Your task to perform on an android device: Do I have any events tomorrow? Image 0: 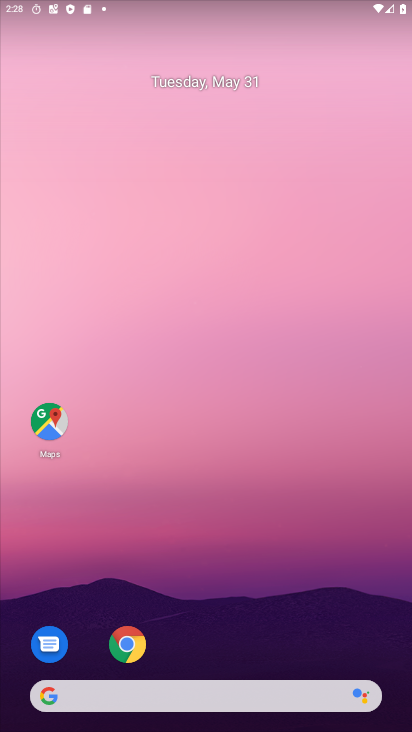
Step 0: drag from (401, 696) to (381, 156)
Your task to perform on an android device: Do I have any events tomorrow? Image 1: 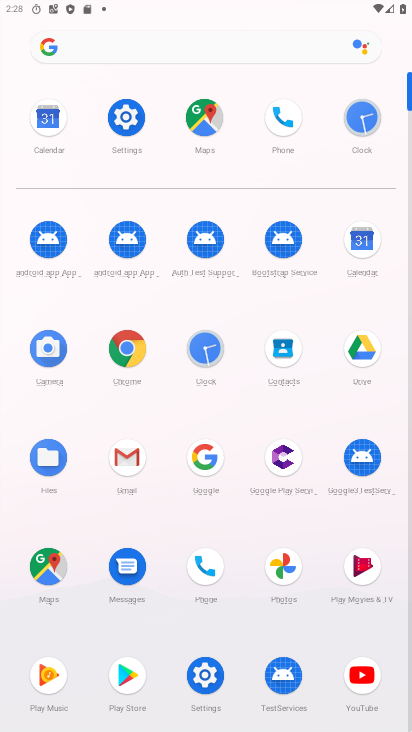
Step 1: click (353, 255)
Your task to perform on an android device: Do I have any events tomorrow? Image 2: 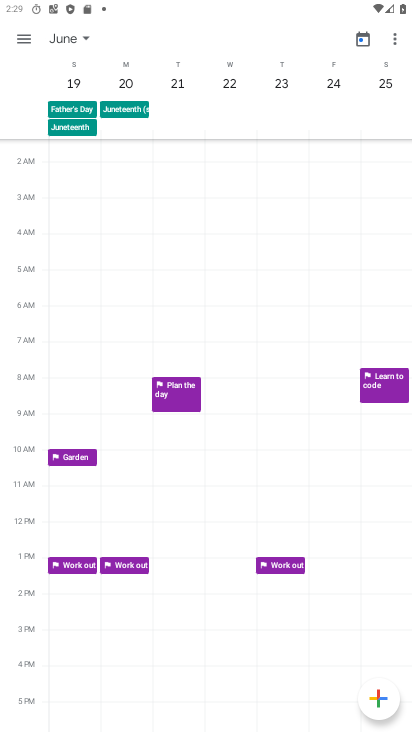
Step 2: click (79, 42)
Your task to perform on an android device: Do I have any events tomorrow? Image 3: 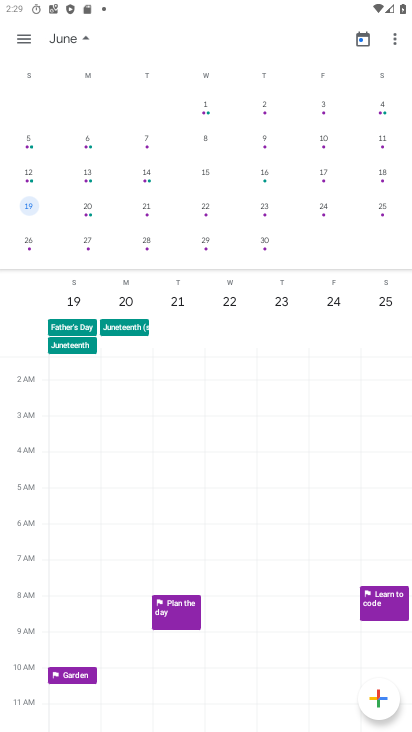
Step 3: click (201, 100)
Your task to perform on an android device: Do I have any events tomorrow? Image 4: 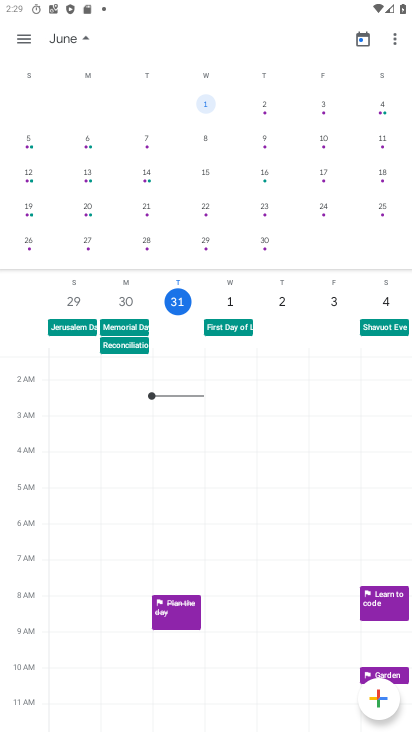
Step 4: click (17, 28)
Your task to perform on an android device: Do I have any events tomorrow? Image 5: 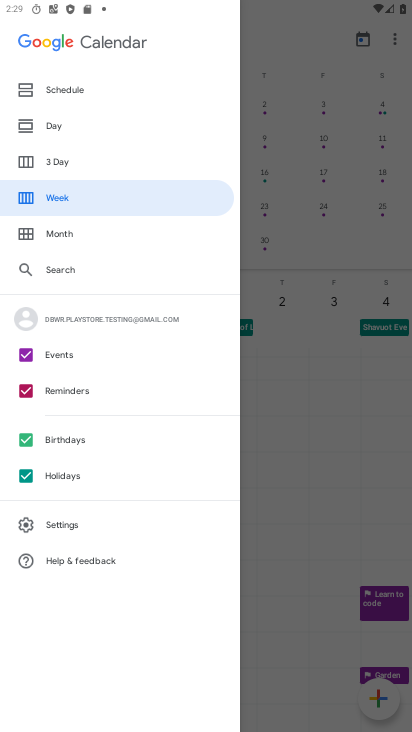
Step 5: click (51, 128)
Your task to perform on an android device: Do I have any events tomorrow? Image 6: 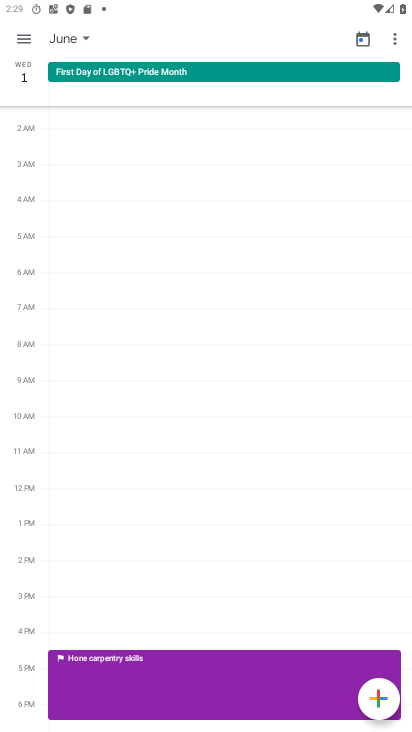
Step 6: click (28, 38)
Your task to perform on an android device: Do I have any events tomorrow? Image 7: 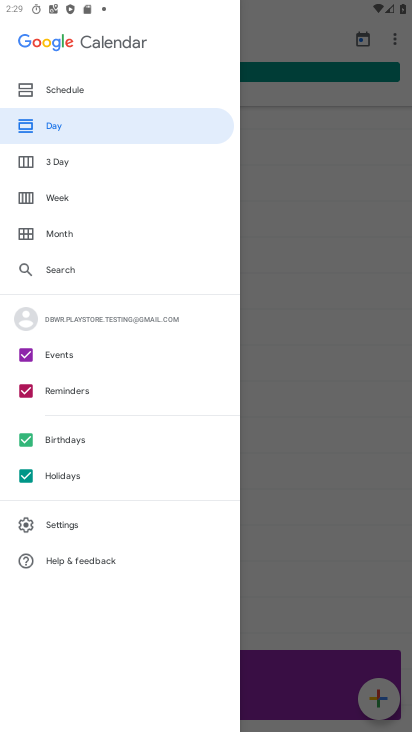
Step 7: click (59, 83)
Your task to perform on an android device: Do I have any events tomorrow? Image 8: 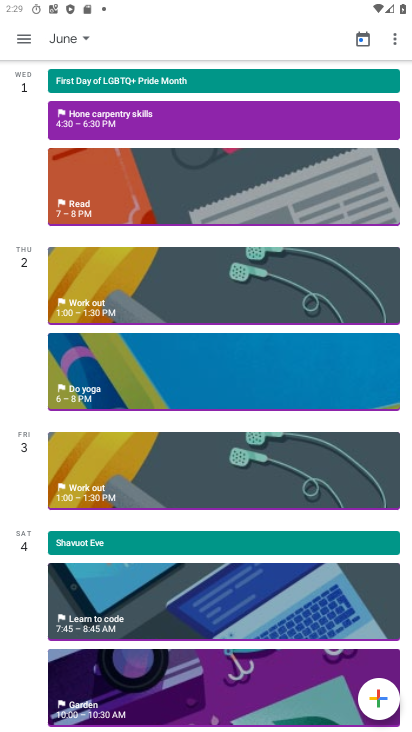
Step 8: task complete